Your task to perform on an android device: Search for sushi restaurants on Maps Image 0: 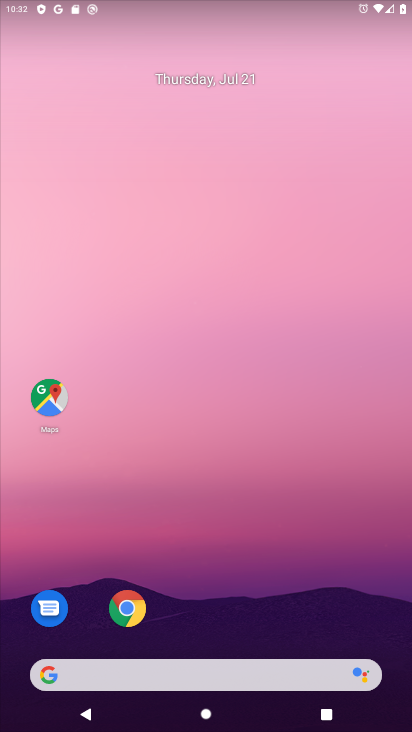
Step 0: drag from (352, 636) to (175, 54)
Your task to perform on an android device: Search for sushi restaurants on Maps Image 1: 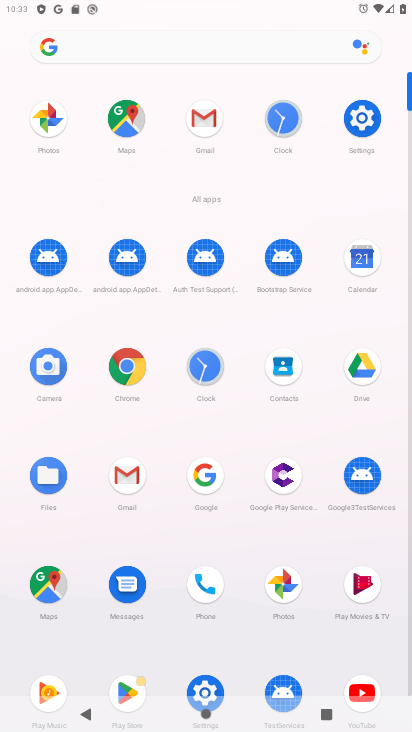
Step 1: click (42, 593)
Your task to perform on an android device: Search for sushi restaurants on Maps Image 2: 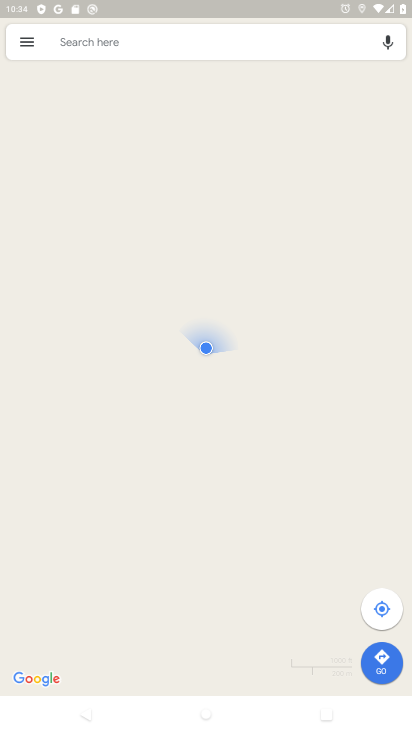
Step 2: click (163, 46)
Your task to perform on an android device: Search for sushi restaurants on Maps Image 3: 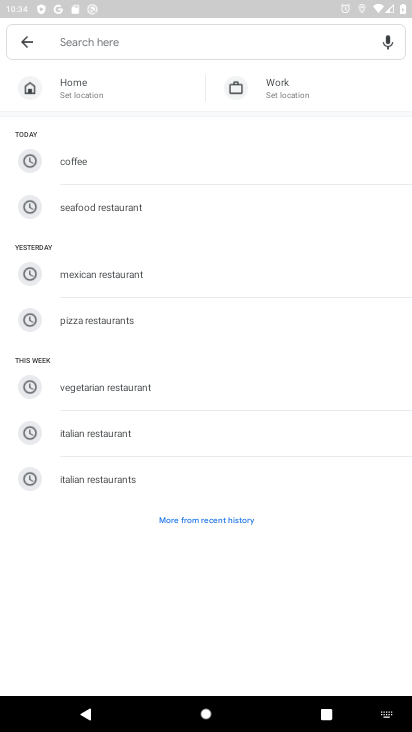
Step 3: type "sushi restaurants"
Your task to perform on an android device: Search for sushi restaurants on Maps Image 4: 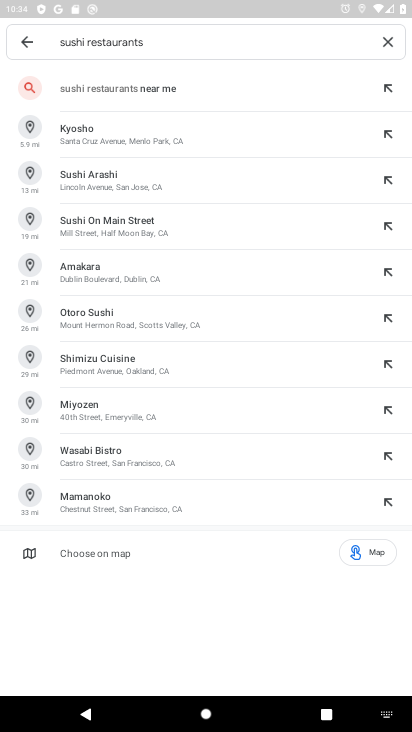
Step 4: click (78, 87)
Your task to perform on an android device: Search for sushi restaurants on Maps Image 5: 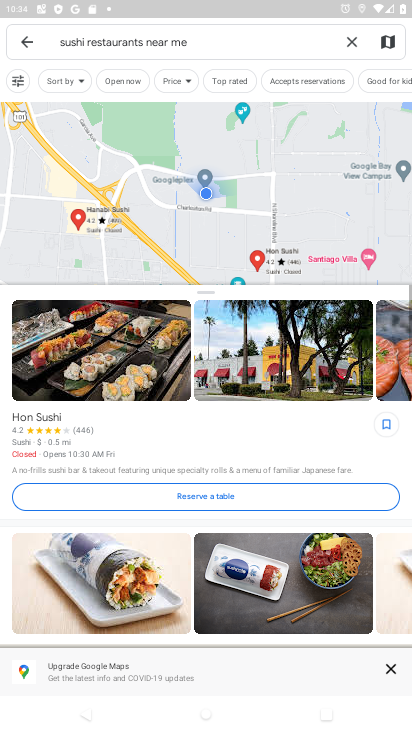
Step 5: task complete